Your task to perform on an android device: Show me popular games on the Play Store Image 0: 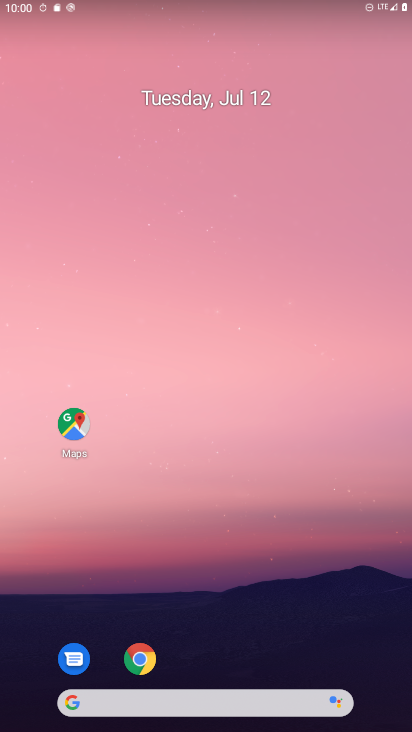
Step 0: drag from (370, 687) to (282, 68)
Your task to perform on an android device: Show me popular games on the Play Store Image 1: 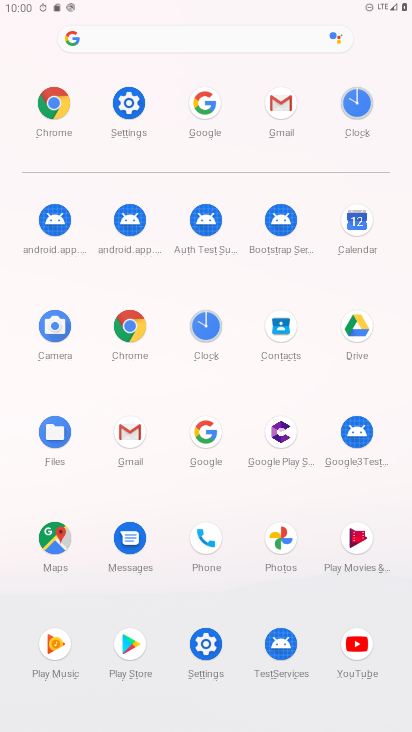
Step 1: click (131, 636)
Your task to perform on an android device: Show me popular games on the Play Store Image 2: 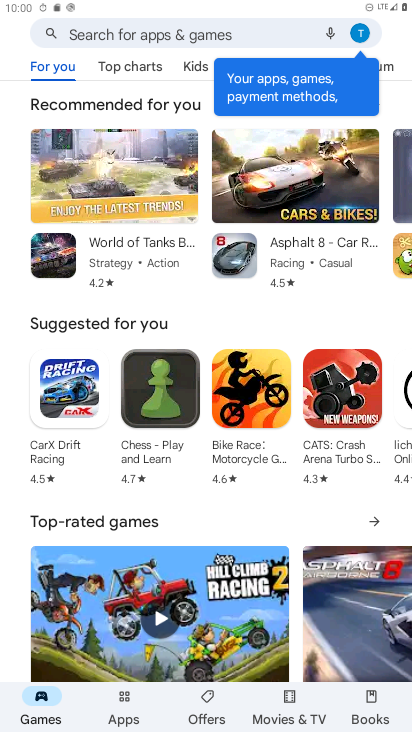
Step 2: task complete